Your task to perform on an android device: What's on my calendar tomorrow? Image 0: 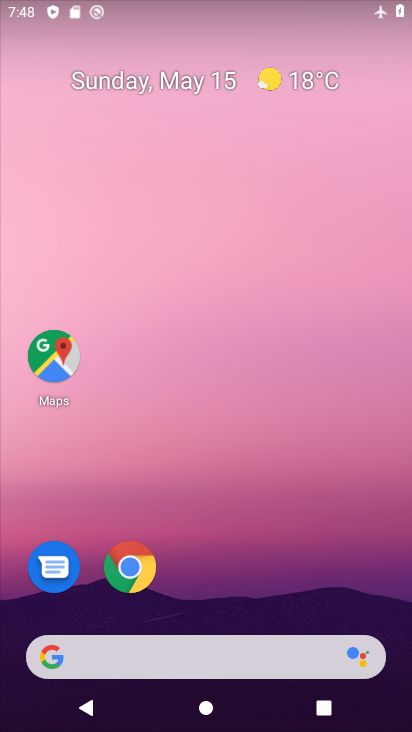
Step 0: drag from (276, 725) to (172, 3)
Your task to perform on an android device: What's on my calendar tomorrow? Image 1: 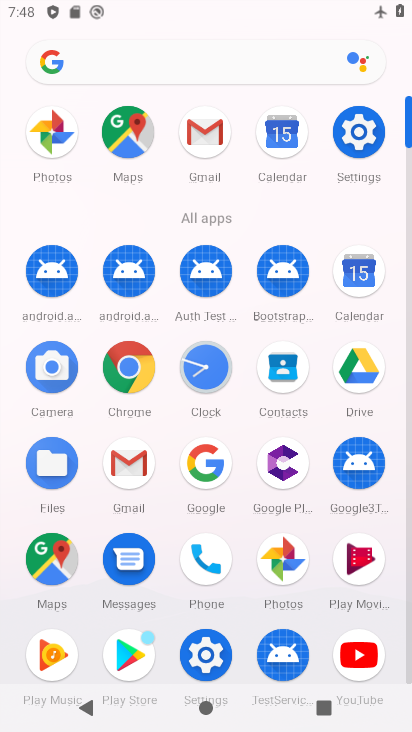
Step 1: click (351, 271)
Your task to perform on an android device: What's on my calendar tomorrow? Image 2: 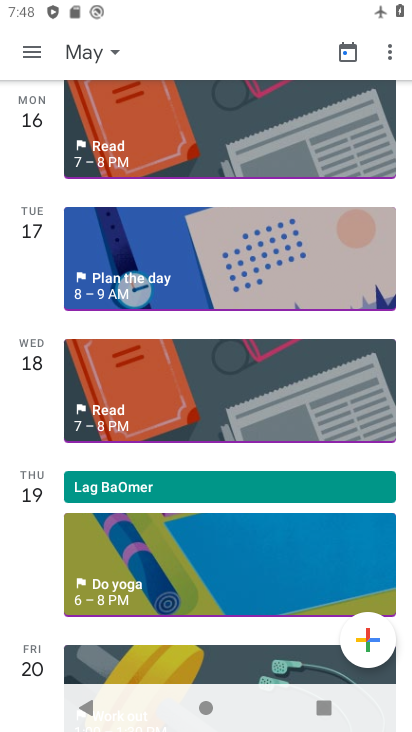
Step 2: task complete